Your task to perform on an android device: Go to ESPN.com Image 0: 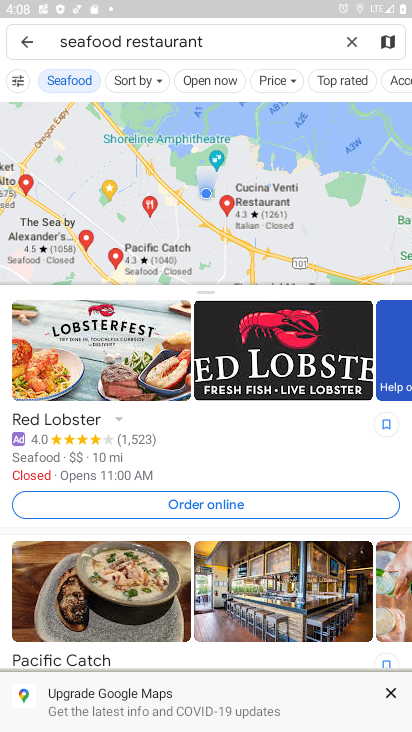
Step 0: press home button
Your task to perform on an android device: Go to ESPN.com Image 1: 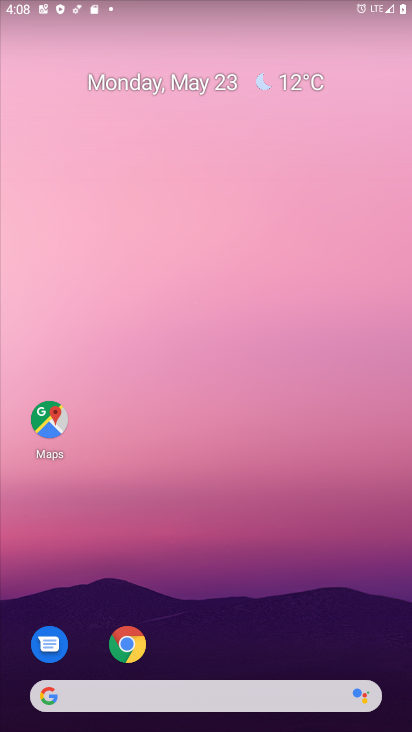
Step 1: drag from (248, 614) to (217, 57)
Your task to perform on an android device: Go to ESPN.com Image 2: 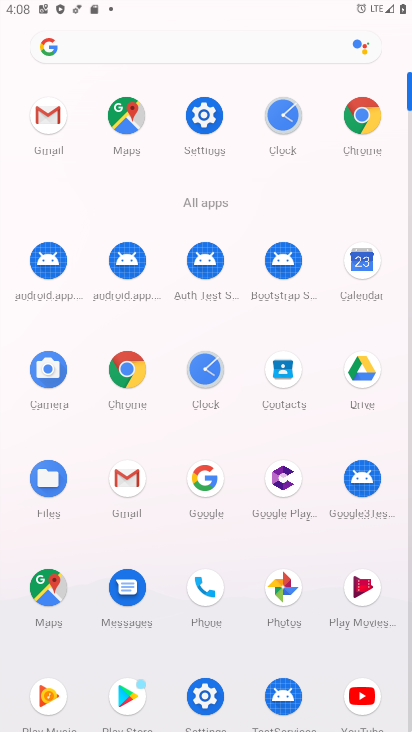
Step 2: click (369, 135)
Your task to perform on an android device: Go to ESPN.com Image 3: 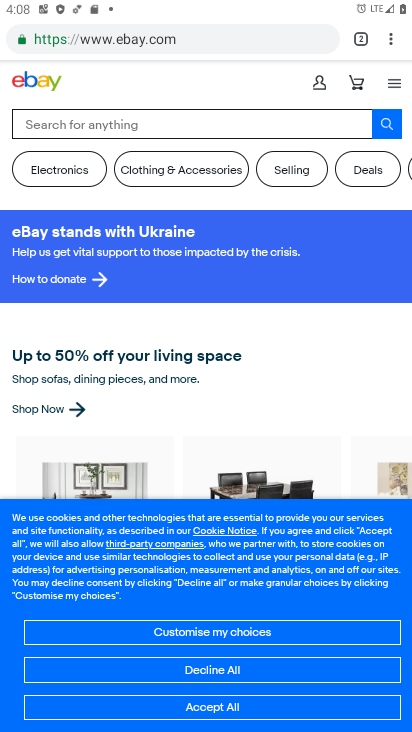
Step 3: click (251, 47)
Your task to perform on an android device: Go to ESPN.com Image 4: 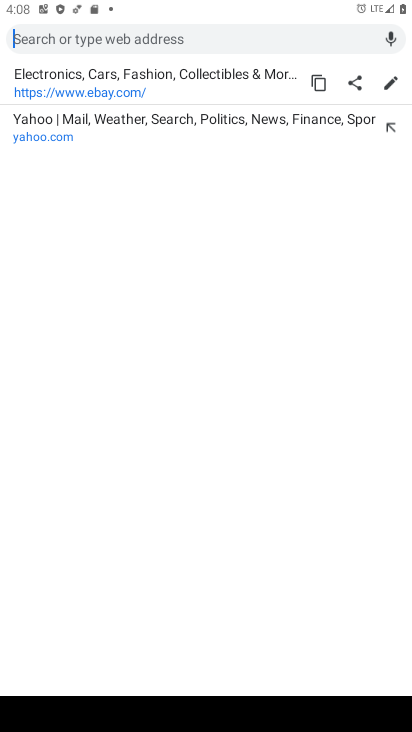
Step 4: type "espn.com"
Your task to perform on an android device: Go to ESPN.com Image 5: 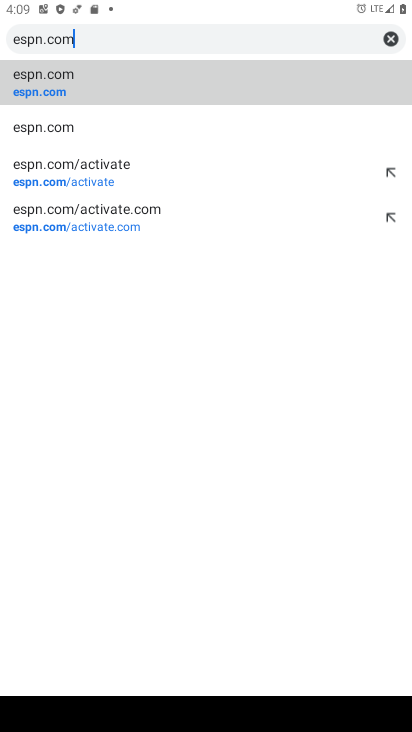
Step 5: click (45, 96)
Your task to perform on an android device: Go to ESPN.com Image 6: 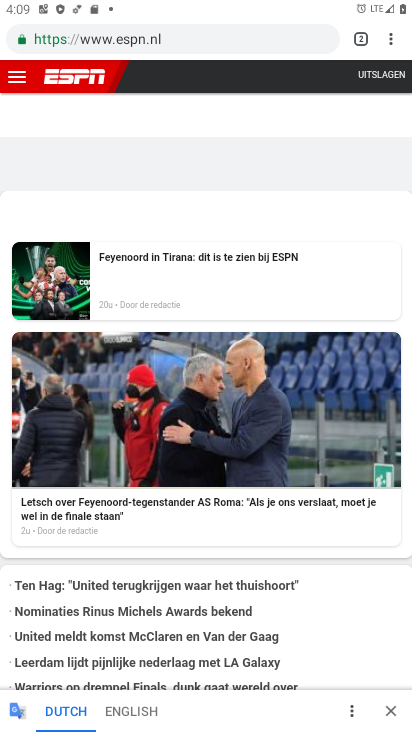
Step 6: task complete